Your task to perform on an android device: Add "usb-b" to the cart on ebay Image 0: 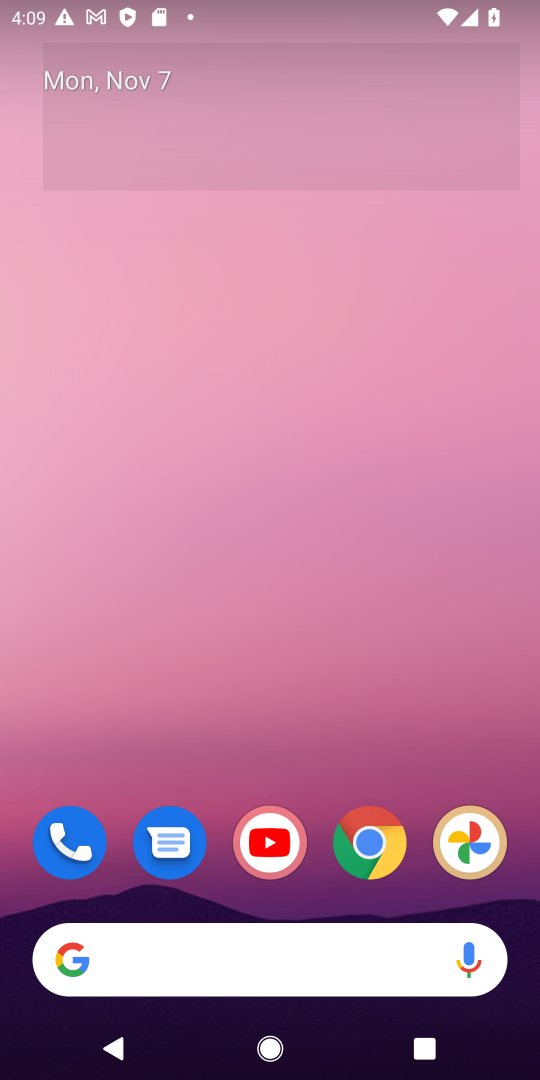
Step 0: drag from (173, 917) to (272, 0)
Your task to perform on an android device: Add "usb-b" to the cart on ebay Image 1: 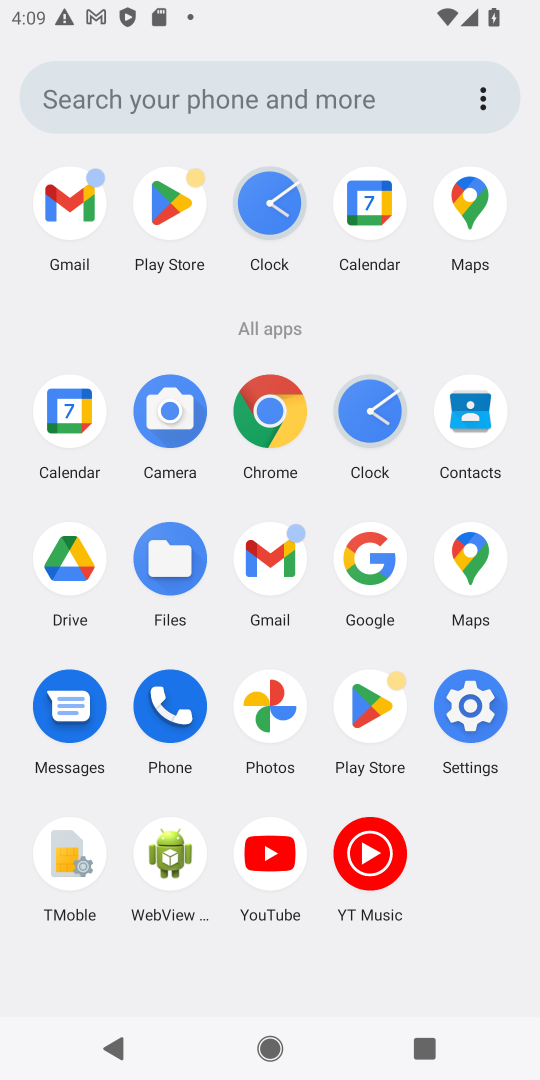
Step 1: click (264, 411)
Your task to perform on an android device: Add "usb-b" to the cart on ebay Image 2: 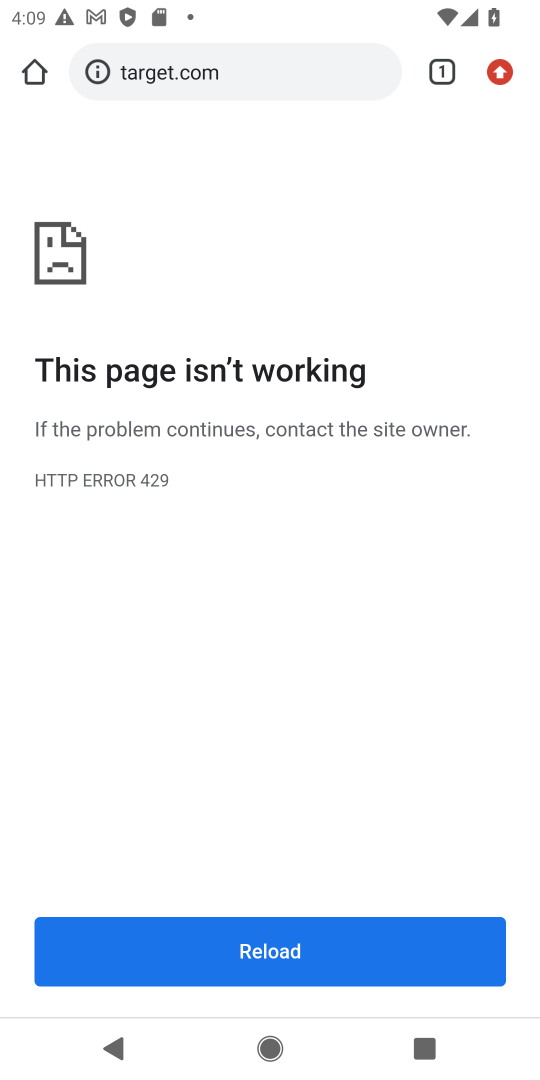
Step 2: click (205, 74)
Your task to perform on an android device: Add "usb-b" to the cart on ebay Image 3: 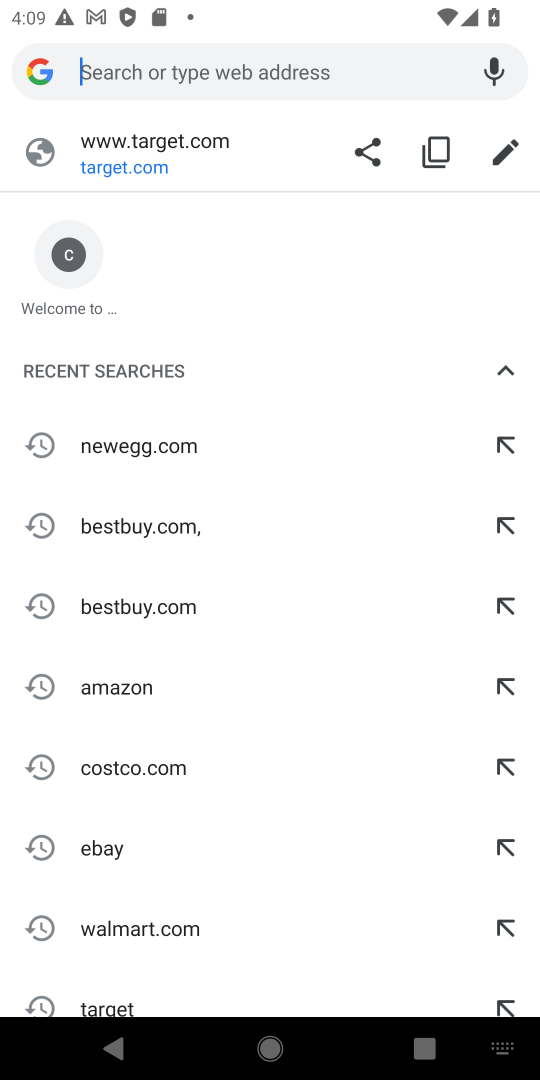
Step 3: click (120, 857)
Your task to perform on an android device: Add "usb-b" to the cart on ebay Image 4: 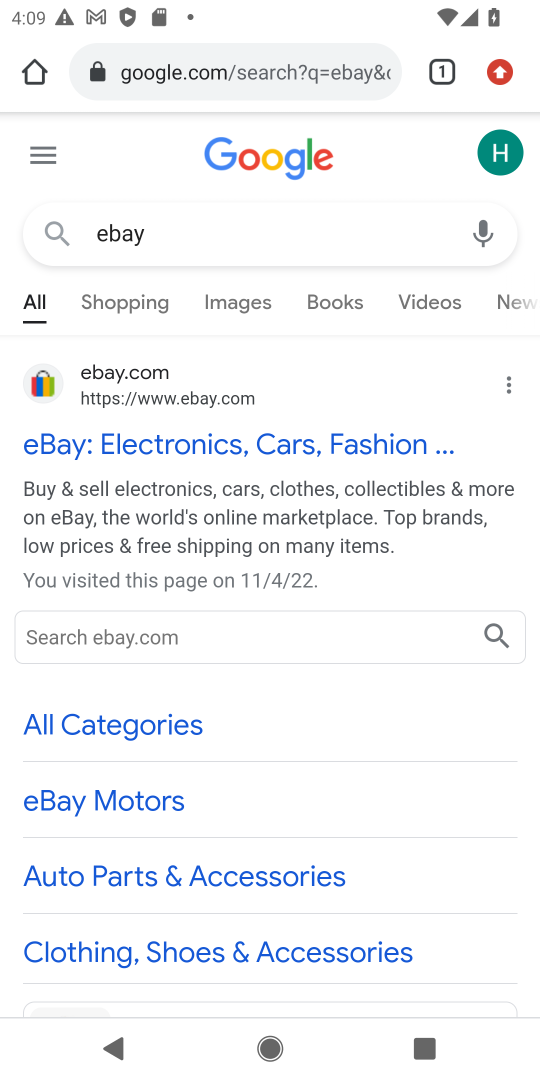
Step 4: click (59, 447)
Your task to perform on an android device: Add "usb-b" to the cart on ebay Image 5: 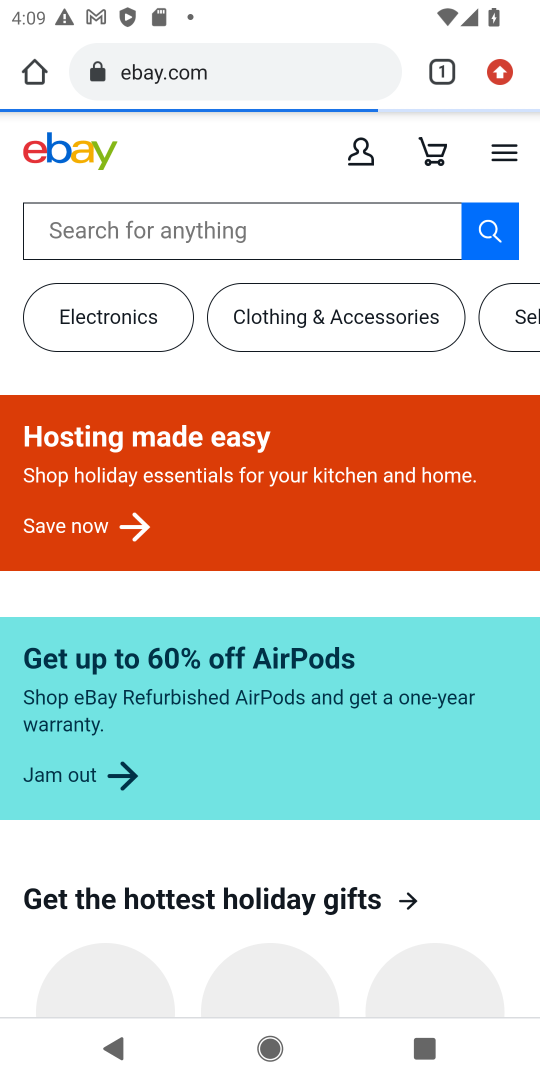
Step 5: click (100, 245)
Your task to perform on an android device: Add "usb-b" to the cart on ebay Image 6: 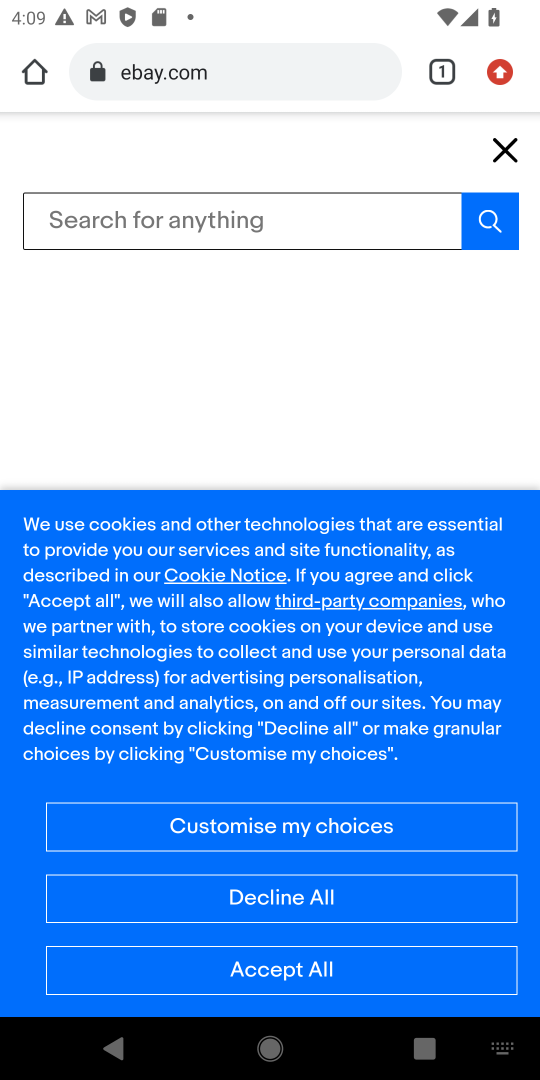
Step 6: type "usb-b"
Your task to perform on an android device: Add "usb-b" to the cart on ebay Image 7: 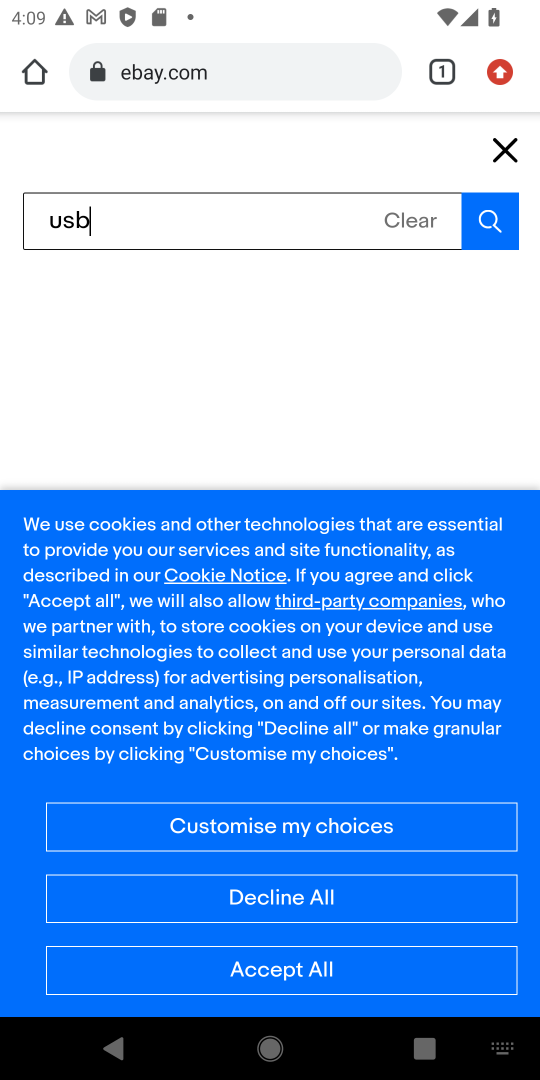
Step 7: press enter
Your task to perform on an android device: Add "usb-b" to the cart on ebay Image 8: 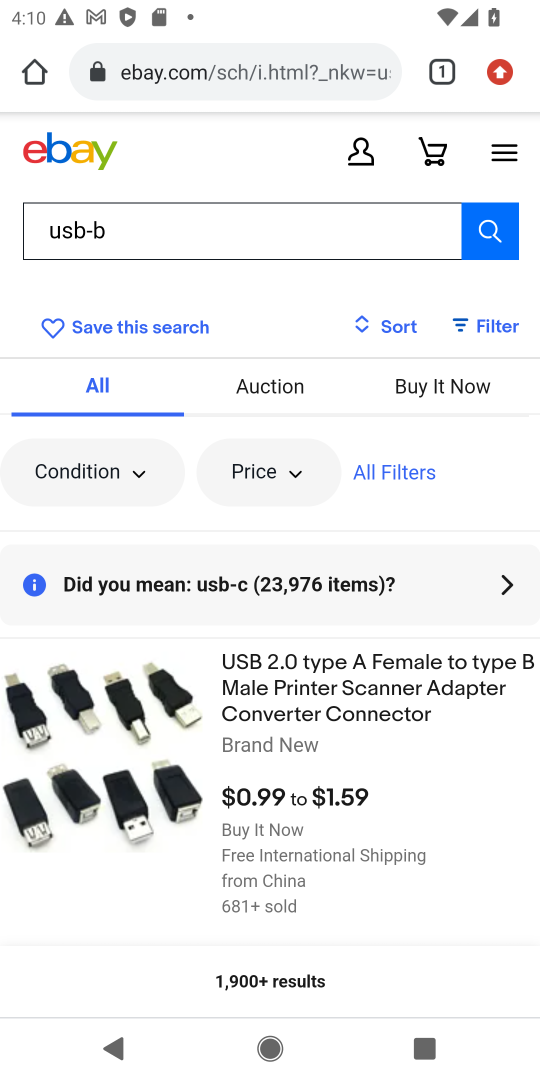
Step 8: drag from (379, 826) to (476, 418)
Your task to perform on an android device: Add "usb-b" to the cart on ebay Image 9: 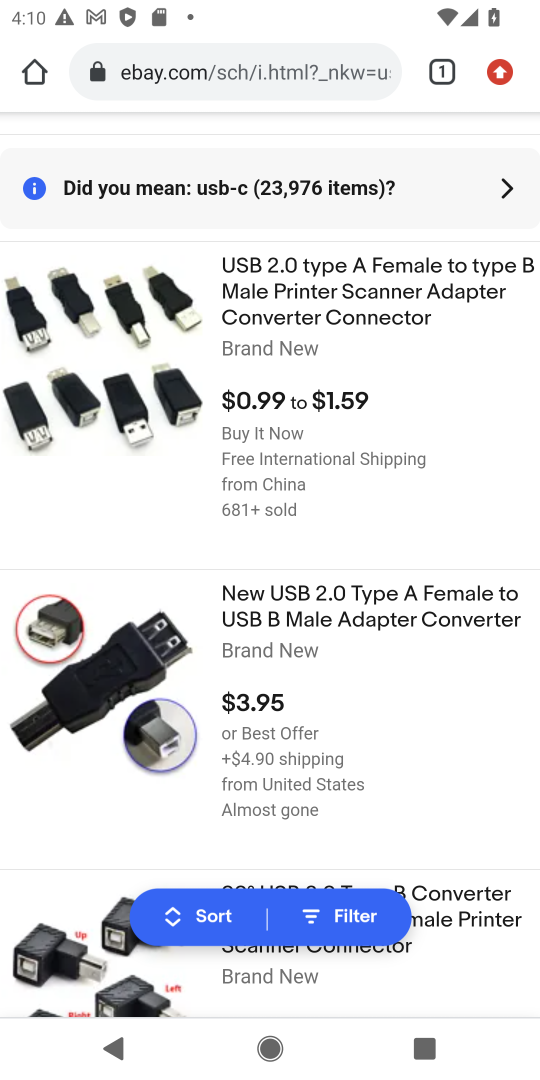
Step 9: click (136, 285)
Your task to perform on an android device: Add "usb-b" to the cart on ebay Image 10: 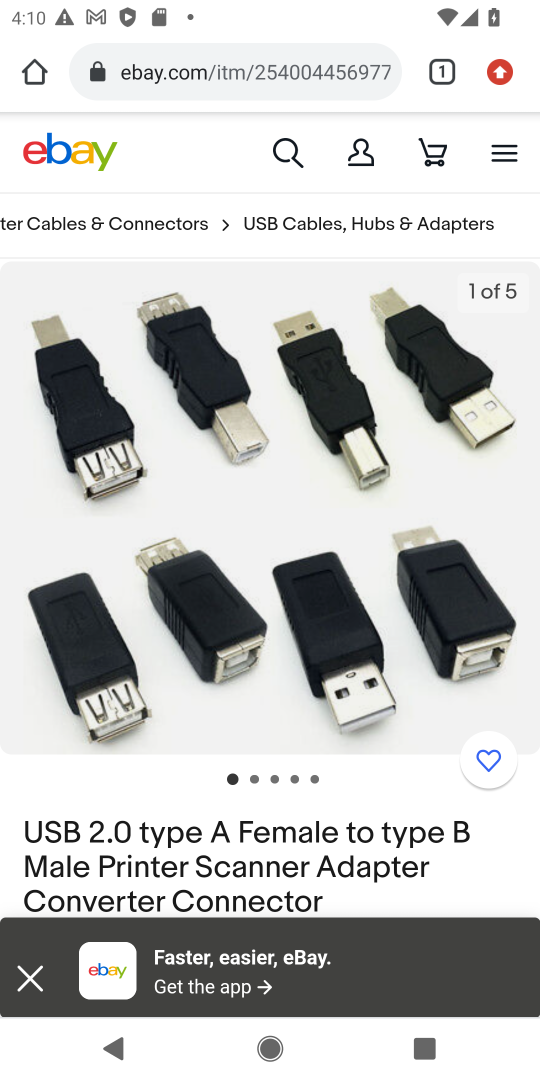
Step 10: drag from (356, 845) to (299, 383)
Your task to perform on an android device: Add "usb-b" to the cart on ebay Image 11: 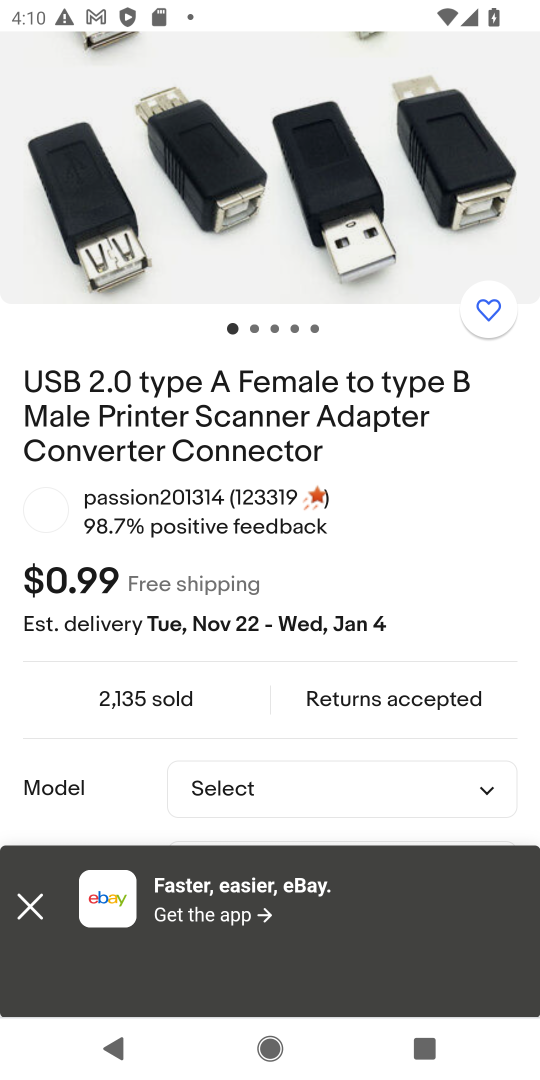
Step 11: drag from (369, 763) to (397, 343)
Your task to perform on an android device: Add "usb-b" to the cart on ebay Image 12: 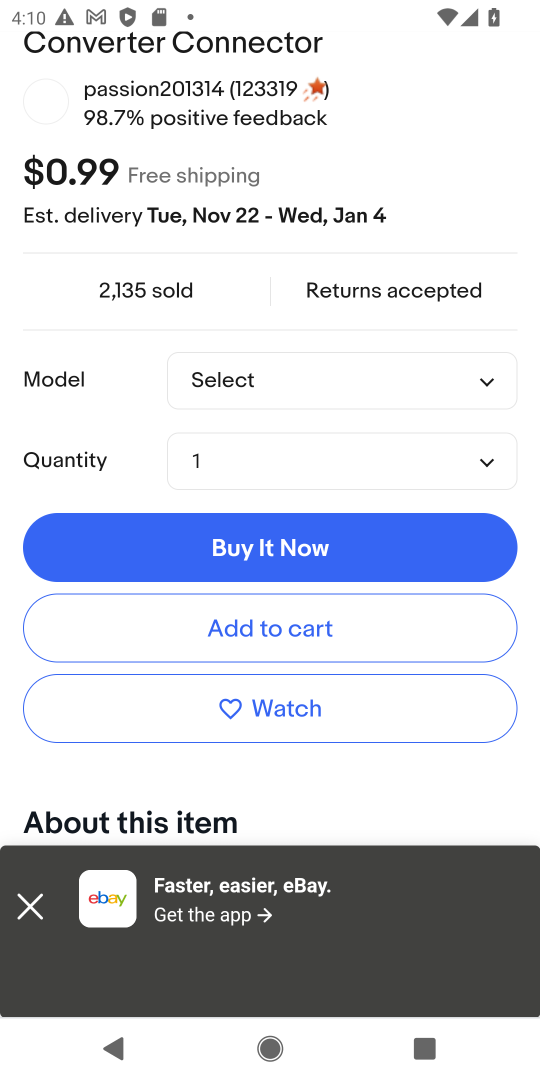
Step 12: drag from (328, 600) to (348, 210)
Your task to perform on an android device: Add "usb-b" to the cart on ebay Image 13: 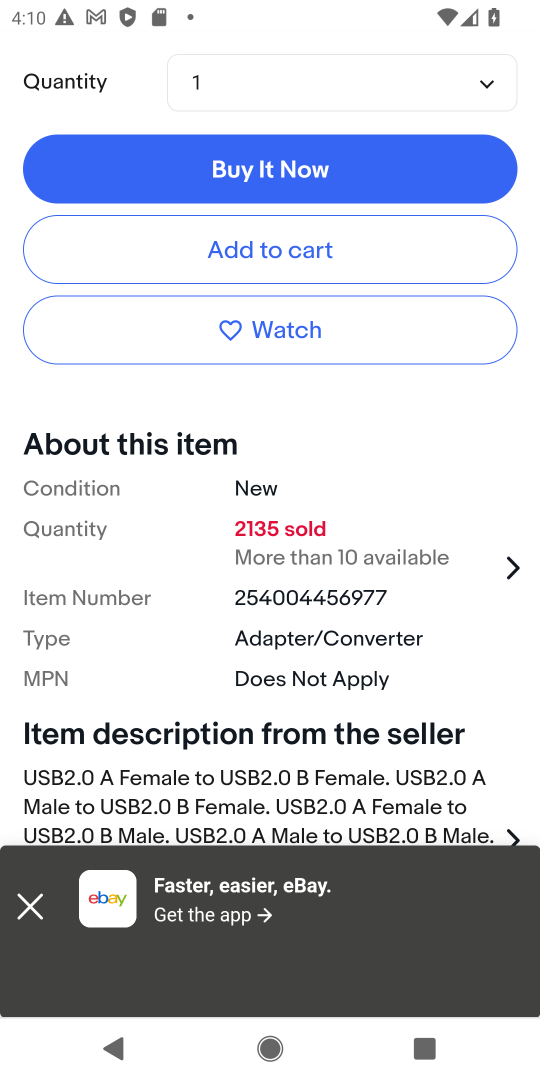
Step 13: click (340, 254)
Your task to perform on an android device: Add "usb-b" to the cart on ebay Image 14: 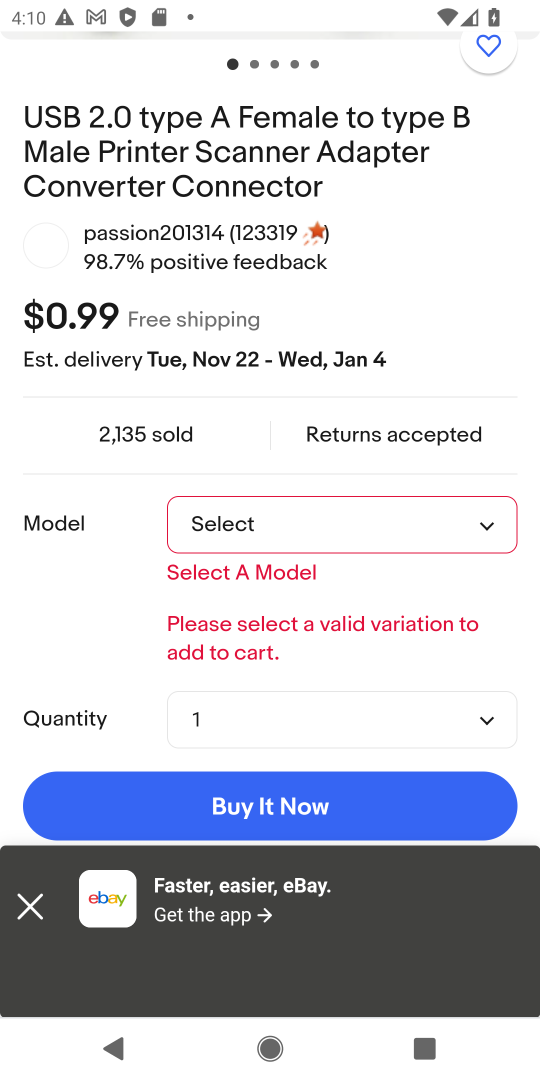
Step 14: drag from (354, 526) to (398, 103)
Your task to perform on an android device: Add "usb-b" to the cart on ebay Image 15: 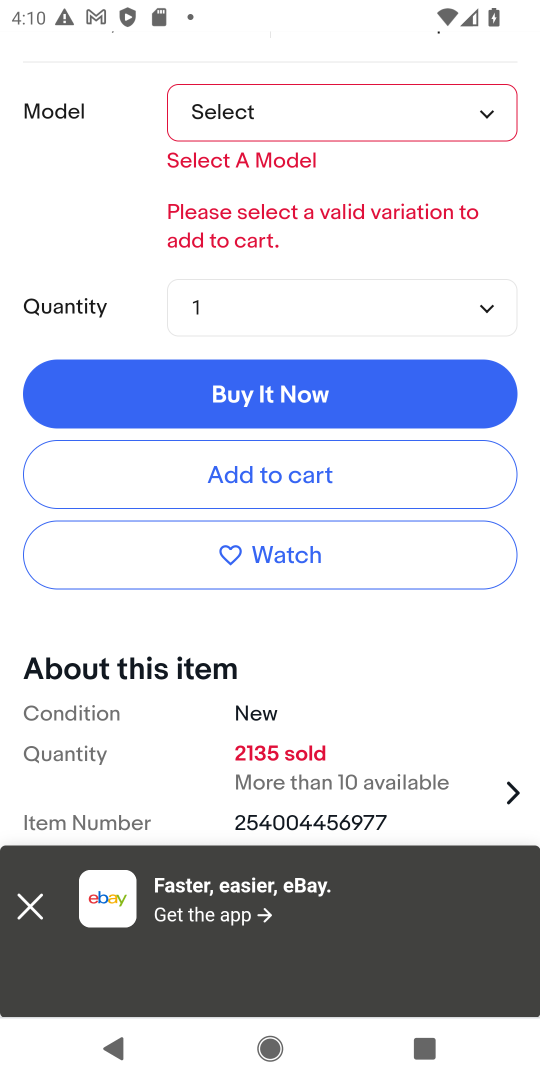
Step 15: click (256, 473)
Your task to perform on an android device: Add "usb-b" to the cart on ebay Image 16: 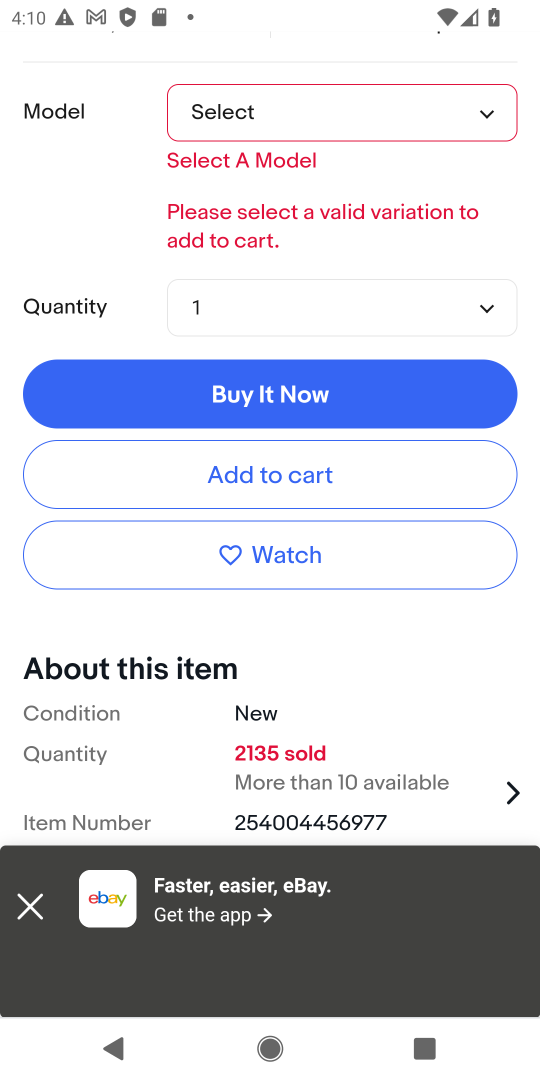
Step 16: click (491, 114)
Your task to perform on an android device: Add "usb-b" to the cart on ebay Image 17: 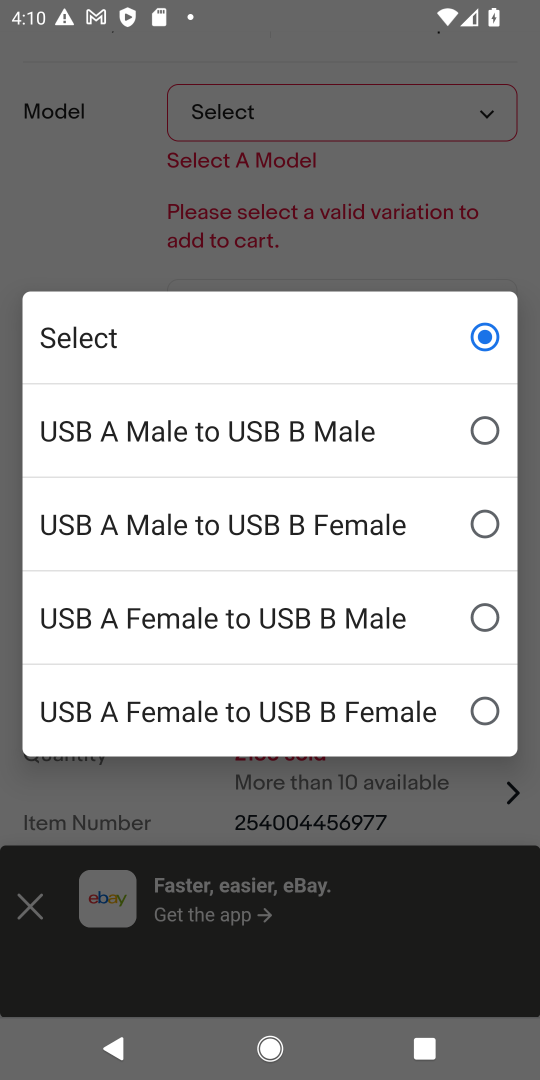
Step 17: click (184, 511)
Your task to perform on an android device: Add "usb-b" to the cart on ebay Image 18: 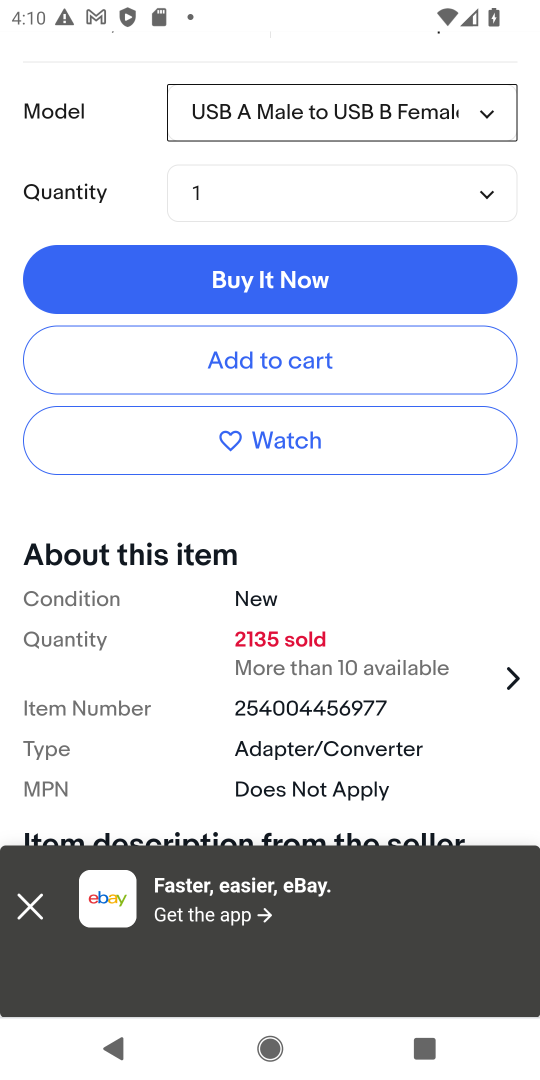
Step 18: click (247, 360)
Your task to perform on an android device: Add "usb-b" to the cart on ebay Image 19: 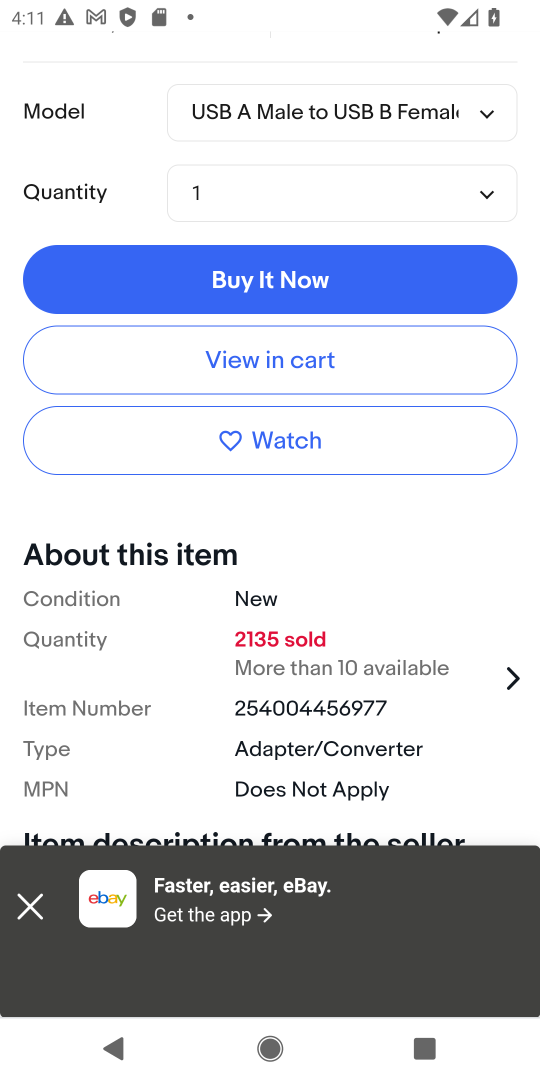
Step 19: task complete